Your task to perform on an android device: Go to Maps Image 0: 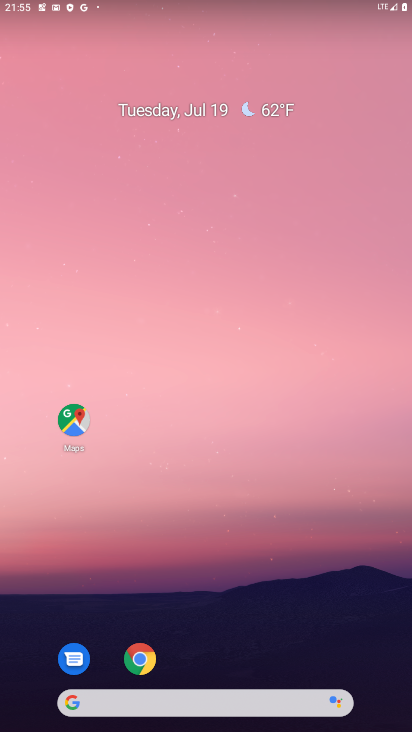
Step 0: drag from (306, 659) to (315, 80)
Your task to perform on an android device: Go to Maps Image 1: 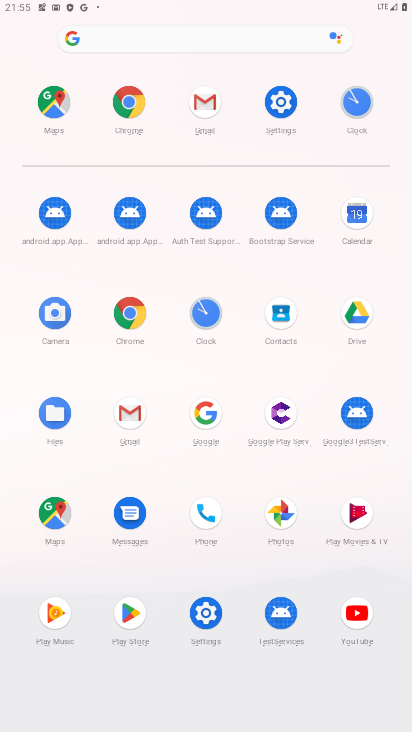
Step 1: click (51, 511)
Your task to perform on an android device: Go to Maps Image 2: 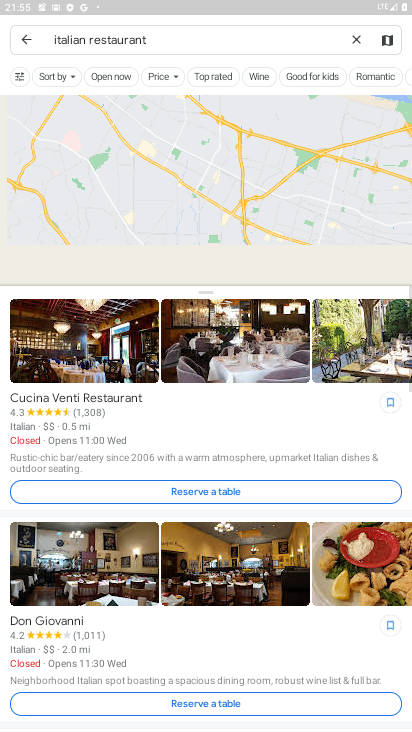
Step 2: click (17, 42)
Your task to perform on an android device: Go to Maps Image 3: 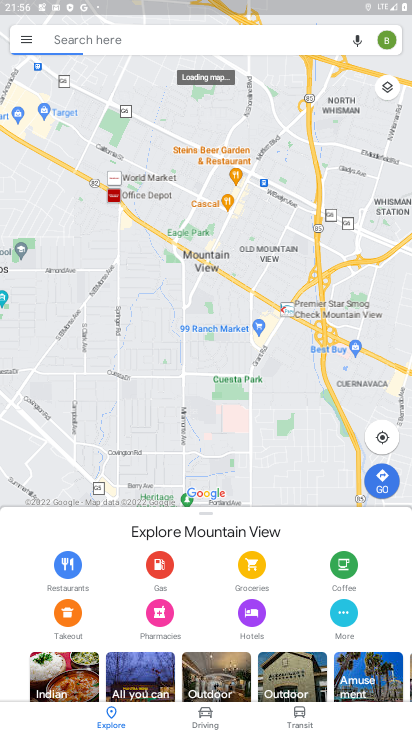
Step 3: task complete